Your task to perform on an android device: Open Chrome and go to settings Image 0: 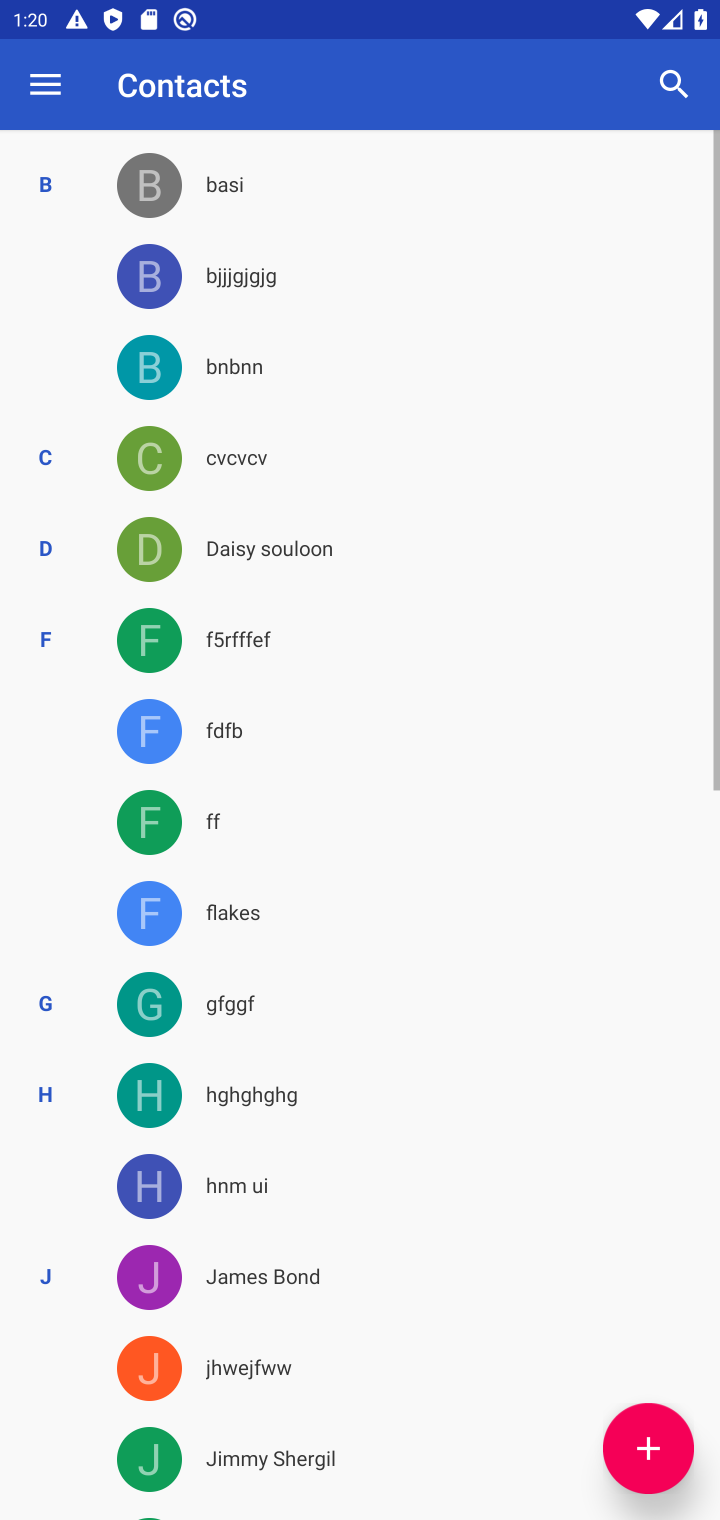
Step 0: press home button
Your task to perform on an android device: Open Chrome and go to settings Image 1: 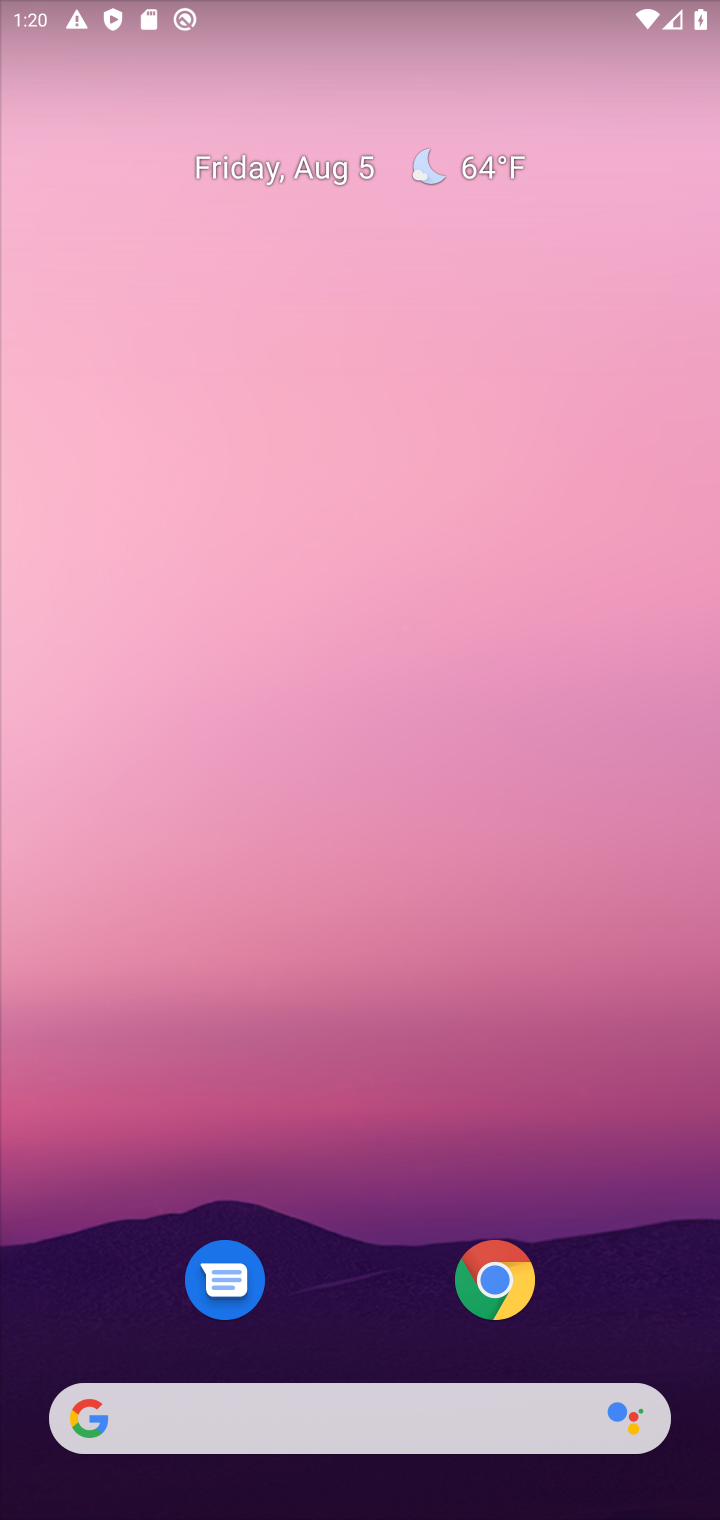
Step 1: click (502, 1265)
Your task to perform on an android device: Open Chrome and go to settings Image 2: 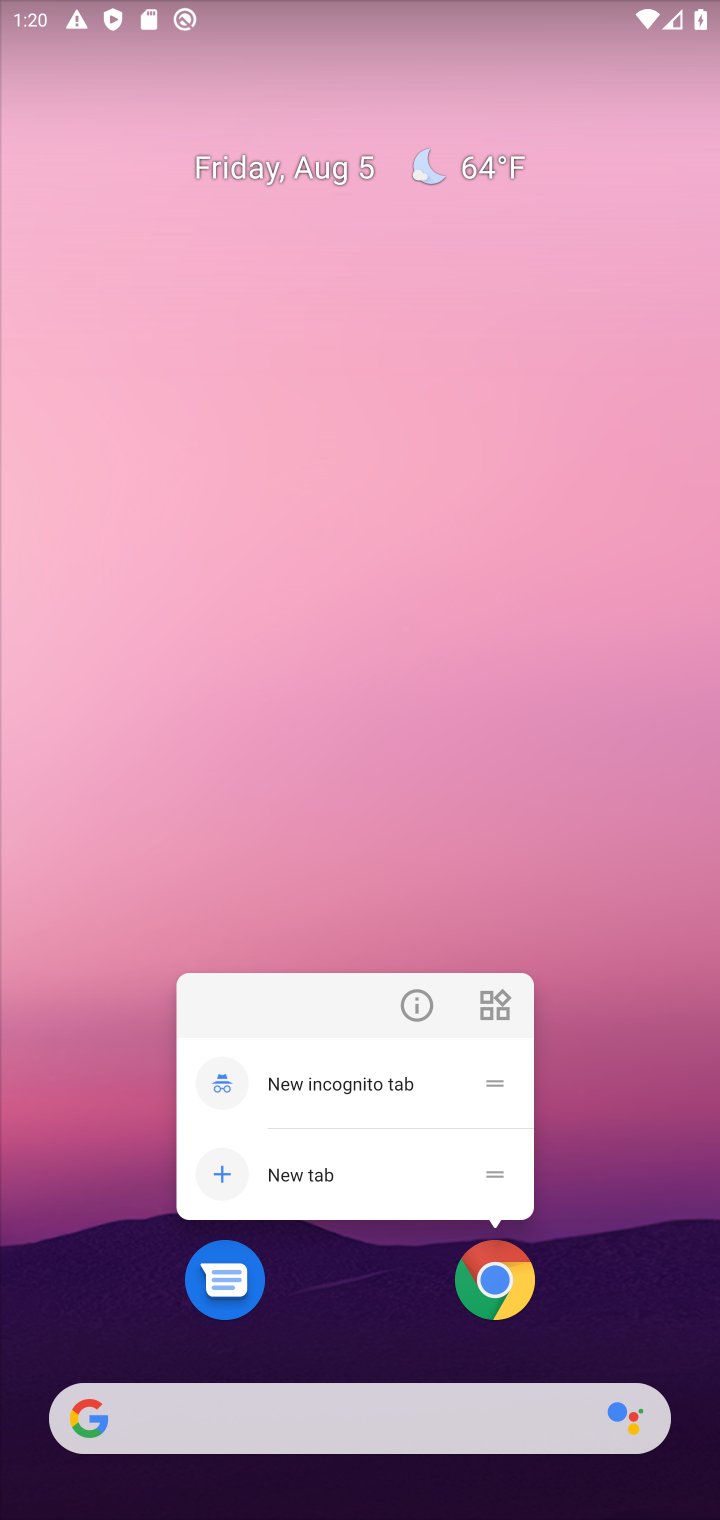
Step 2: click (491, 1280)
Your task to perform on an android device: Open Chrome and go to settings Image 3: 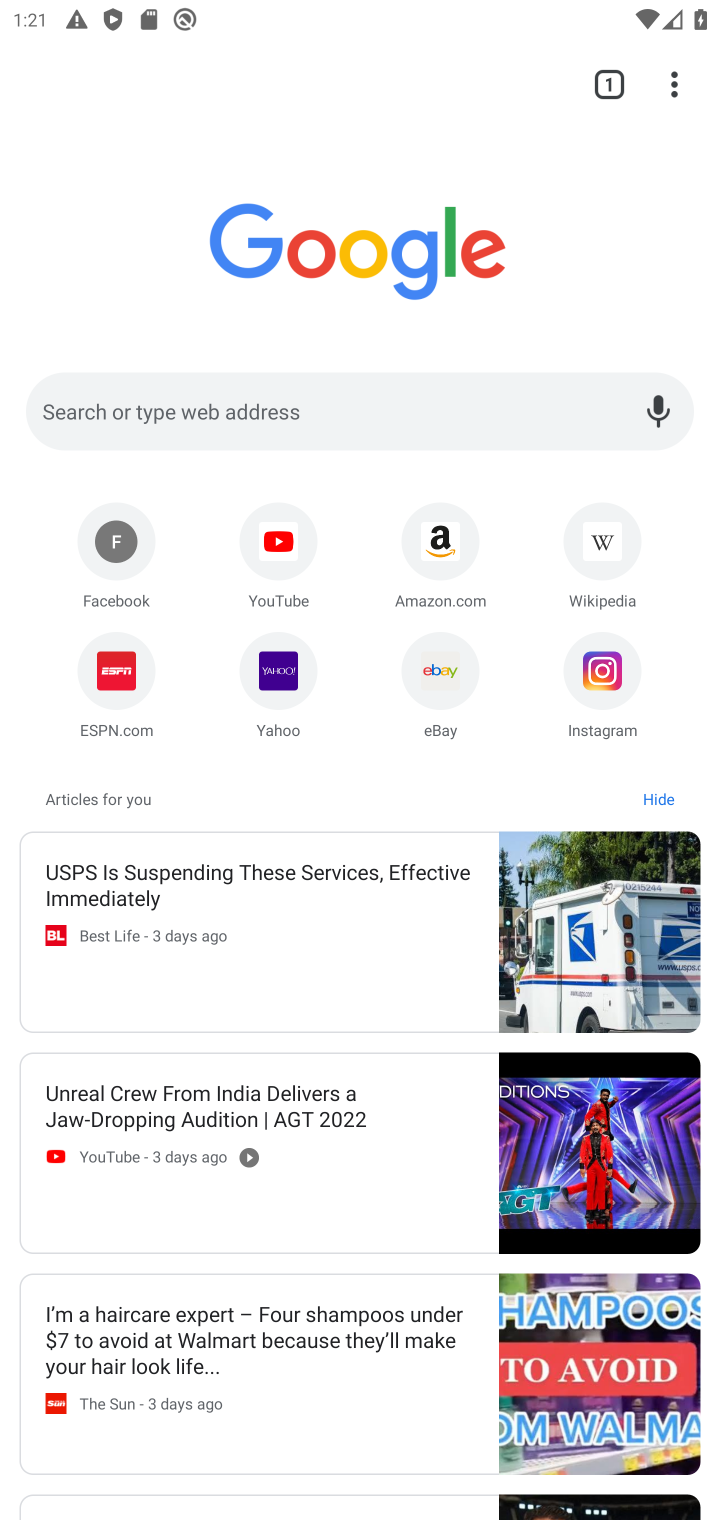
Step 3: click (668, 86)
Your task to perform on an android device: Open Chrome and go to settings Image 4: 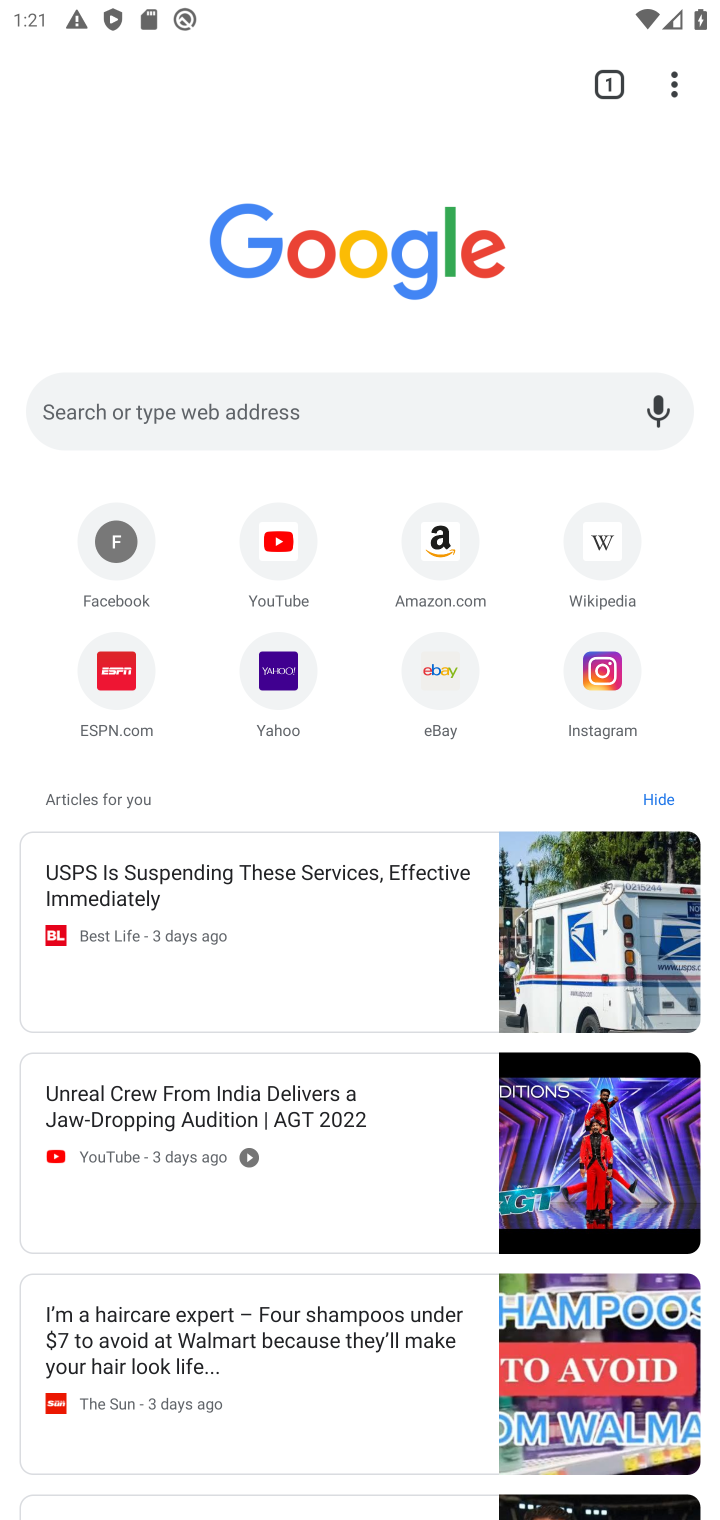
Step 4: click (668, 86)
Your task to perform on an android device: Open Chrome and go to settings Image 5: 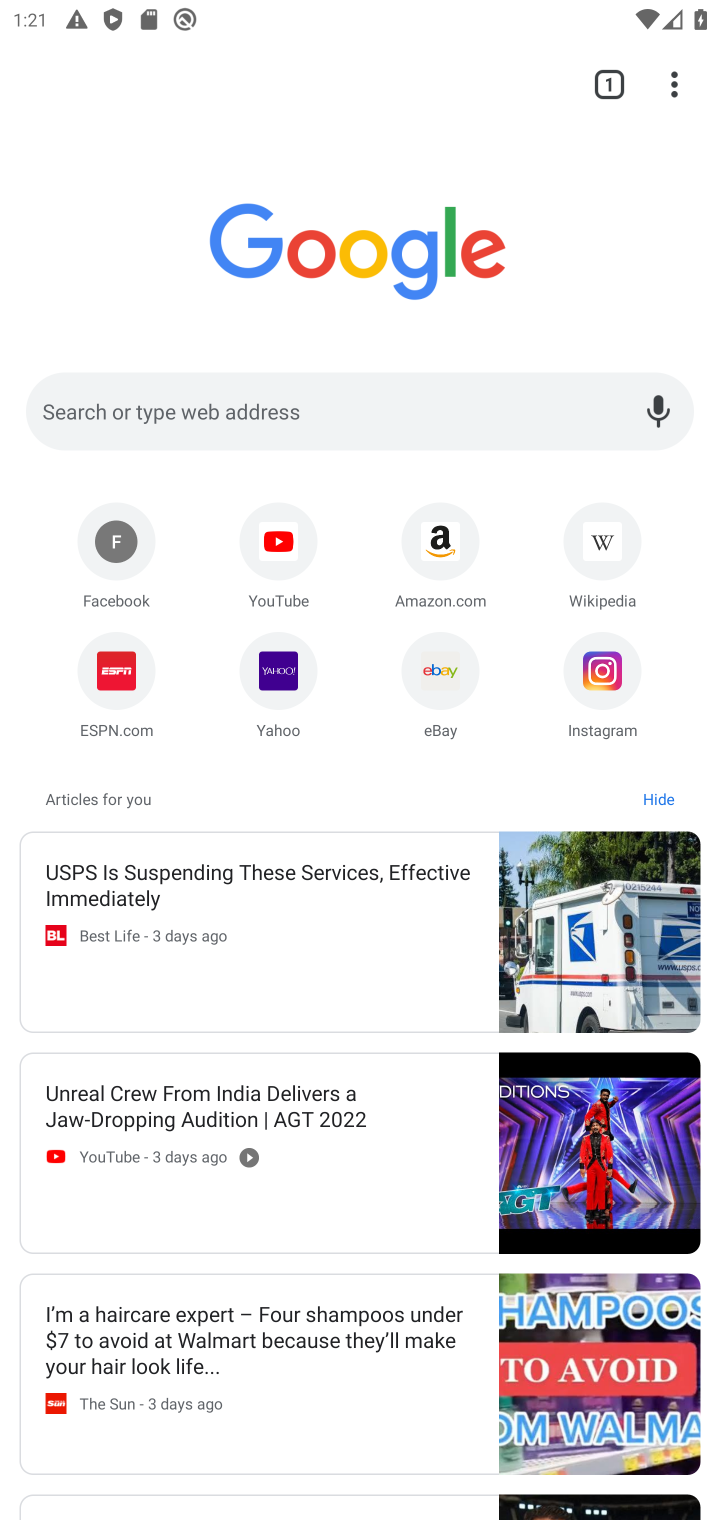
Step 5: click (697, 113)
Your task to perform on an android device: Open Chrome and go to settings Image 6: 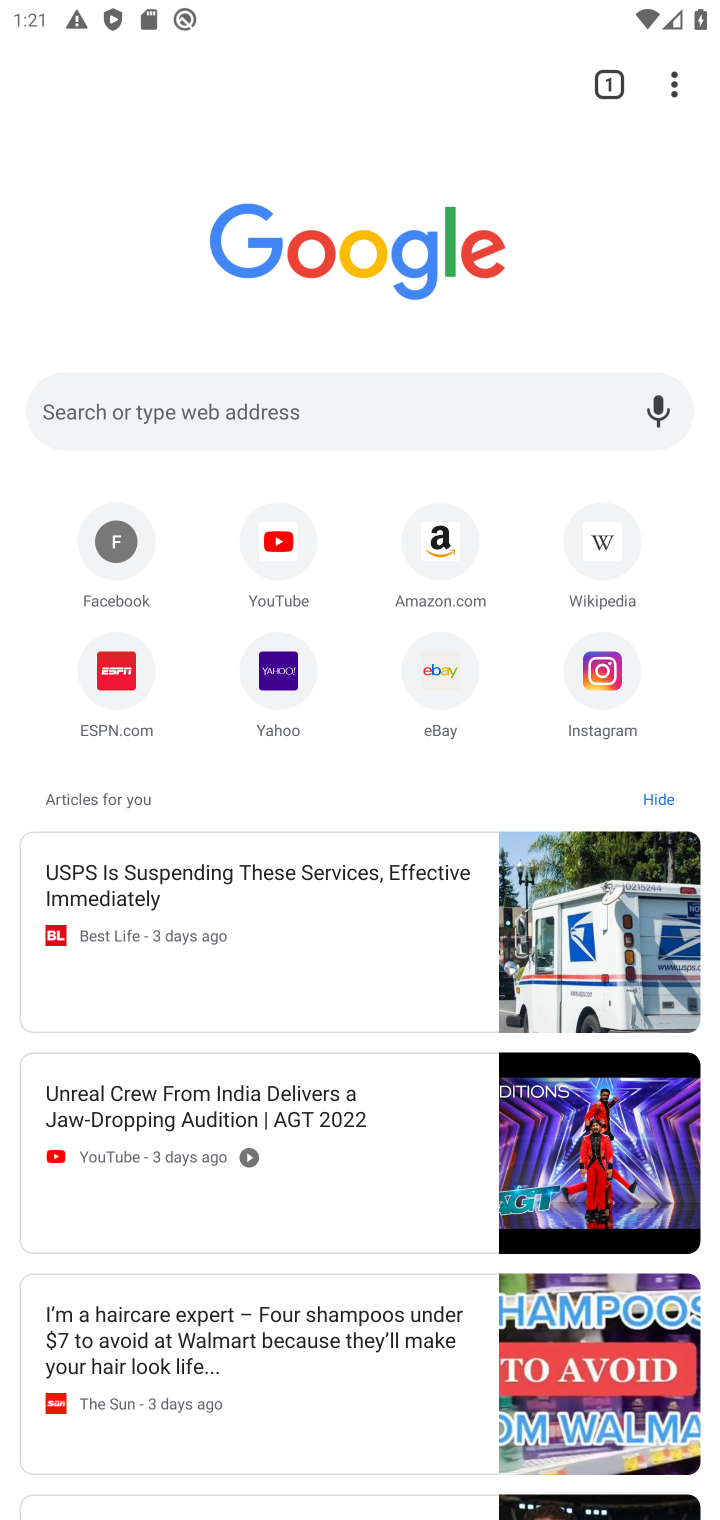
Step 6: click (703, 88)
Your task to perform on an android device: Open Chrome and go to settings Image 7: 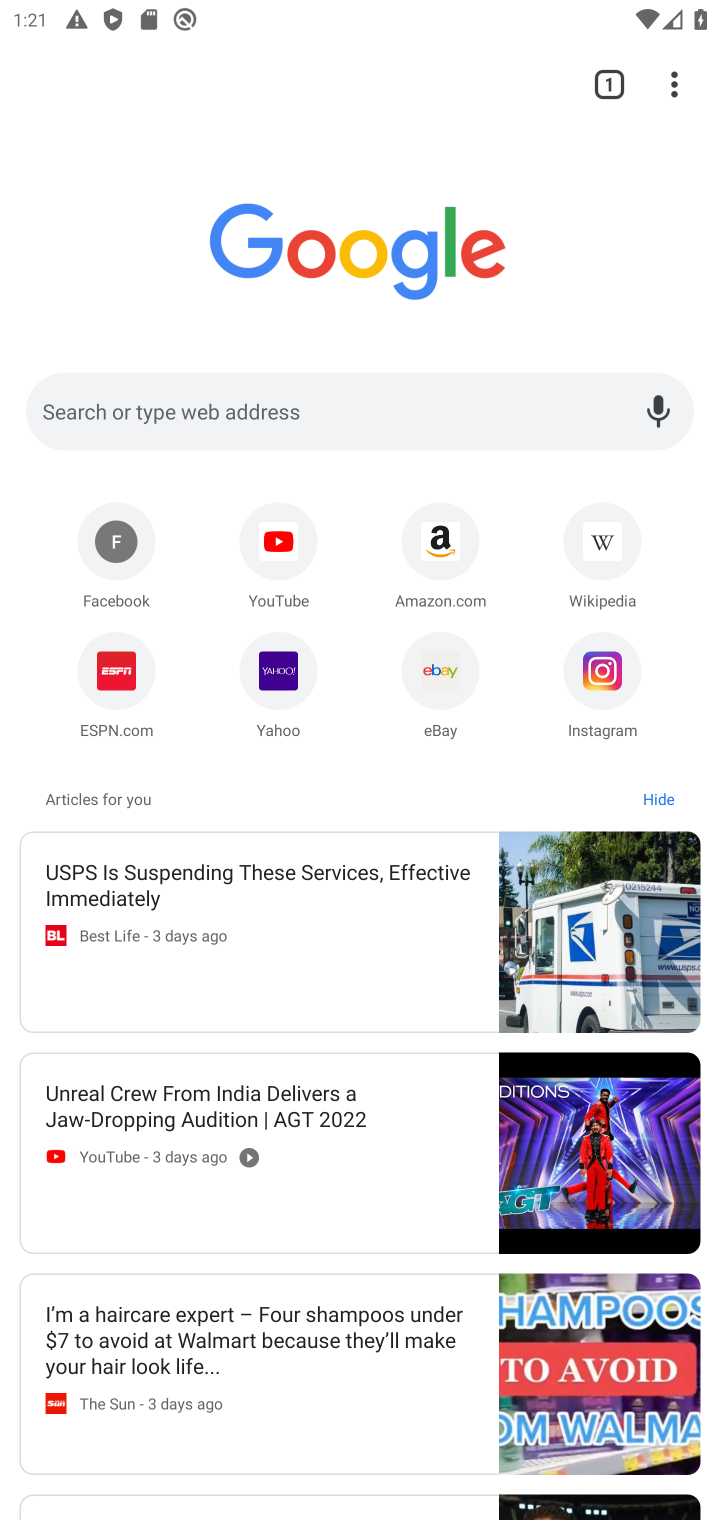
Step 7: click (703, 88)
Your task to perform on an android device: Open Chrome and go to settings Image 8: 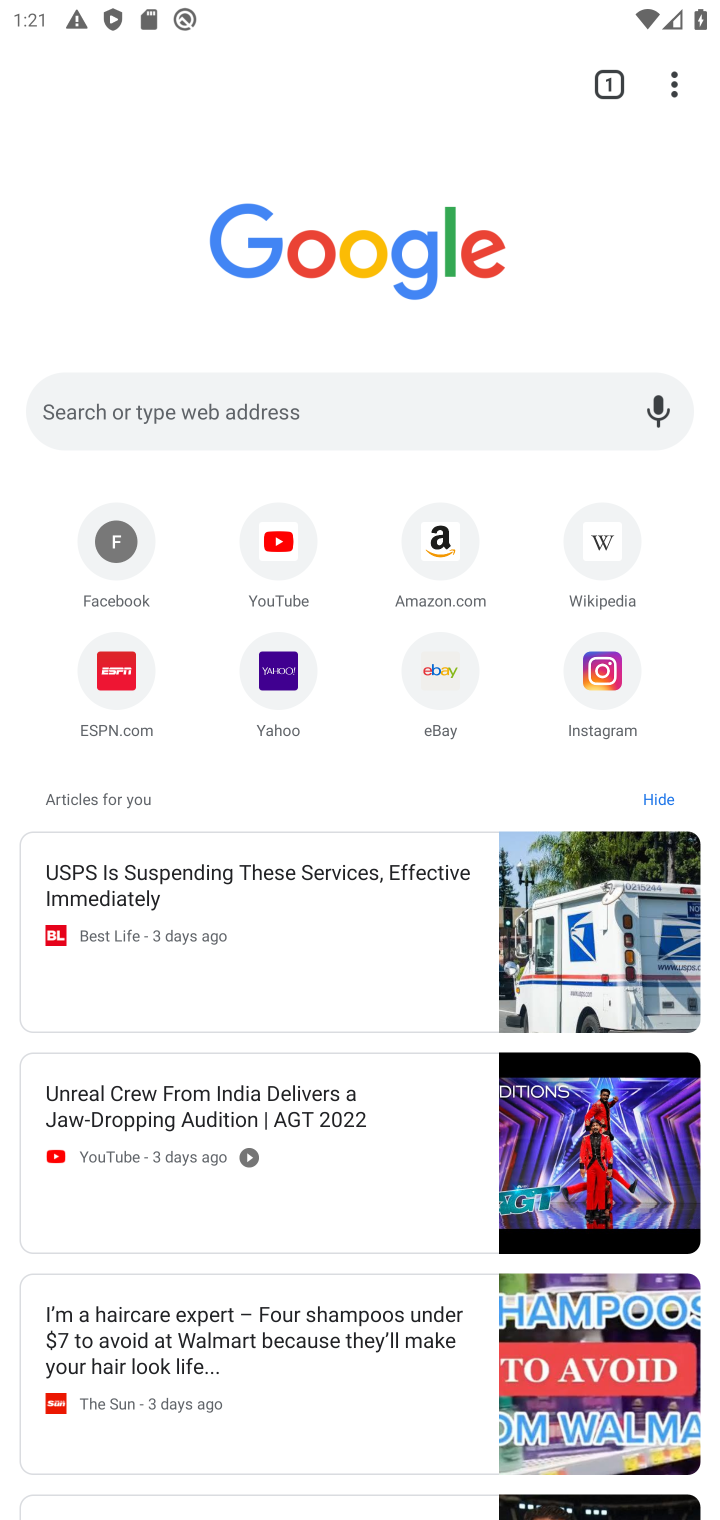
Step 8: click (701, 33)
Your task to perform on an android device: Open Chrome and go to settings Image 9: 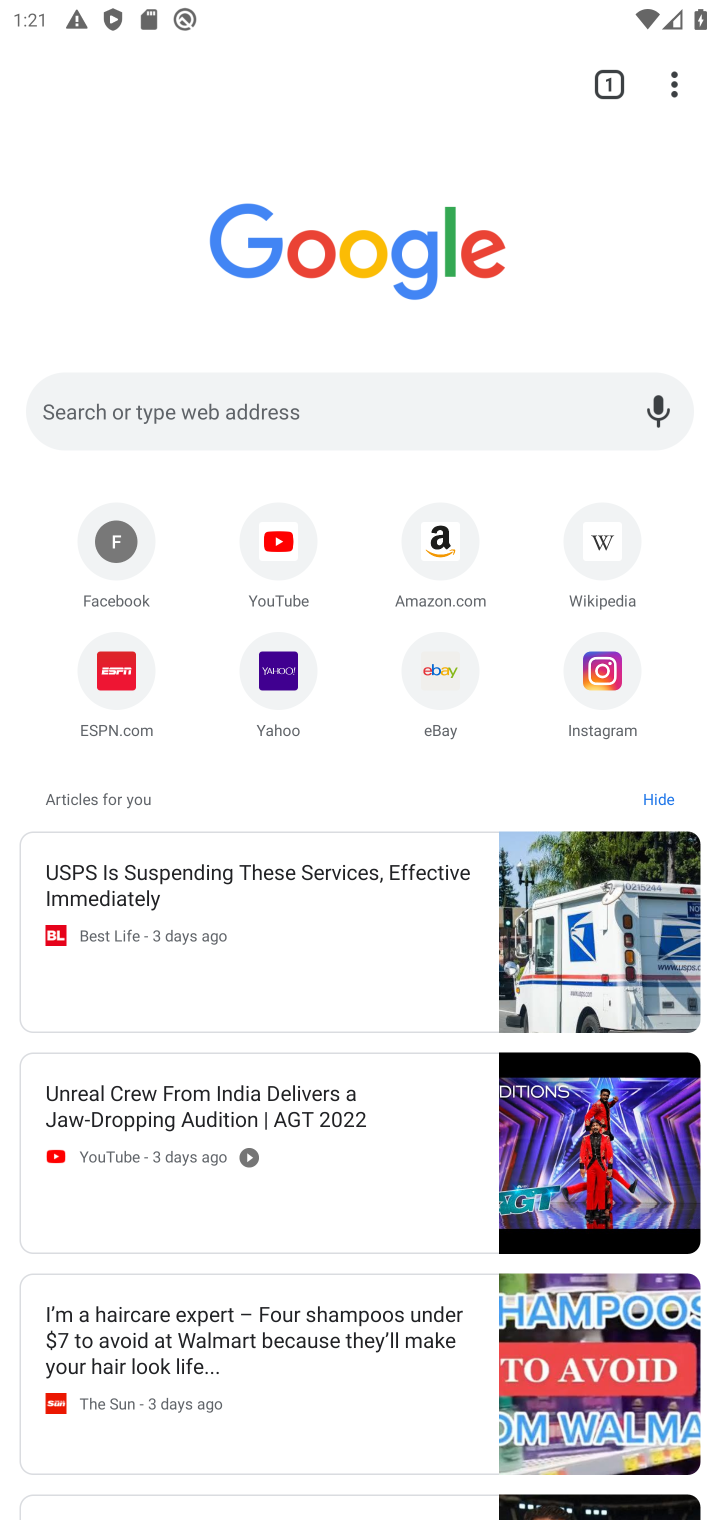
Step 9: click (701, 74)
Your task to perform on an android device: Open Chrome and go to settings Image 10: 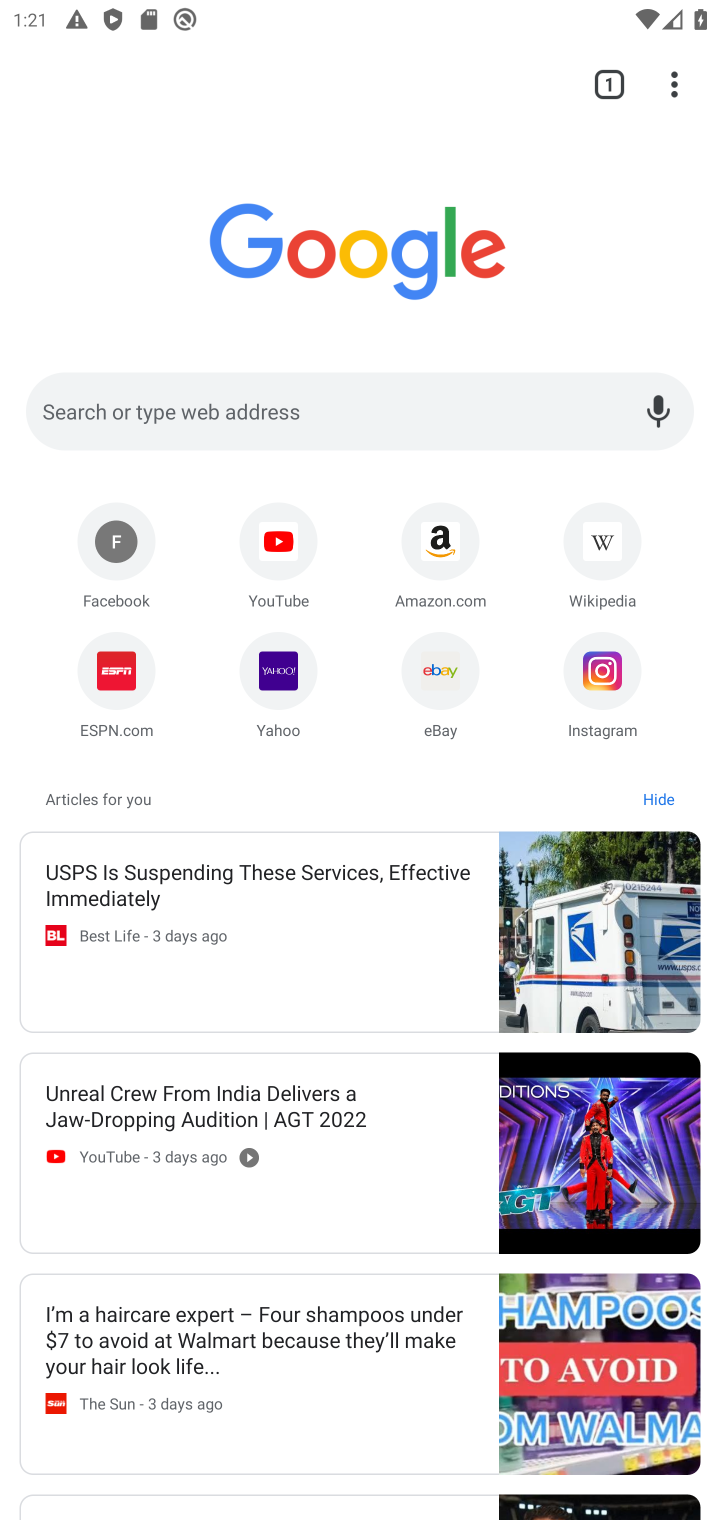
Step 10: click (685, 74)
Your task to perform on an android device: Open Chrome and go to settings Image 11: 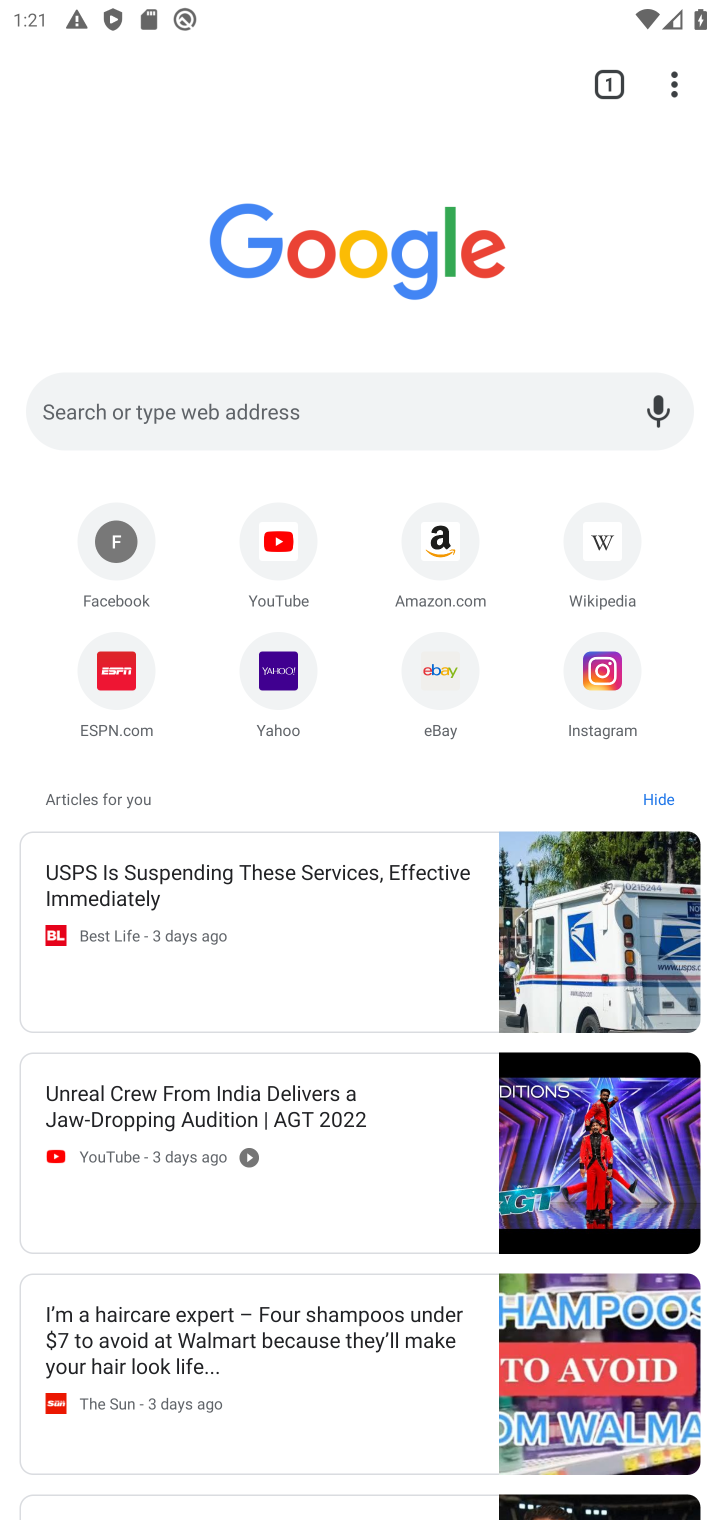
Step 11: click (680, 93)
Your task to perform on an android device: Open Chrome and go to settings Image 12: 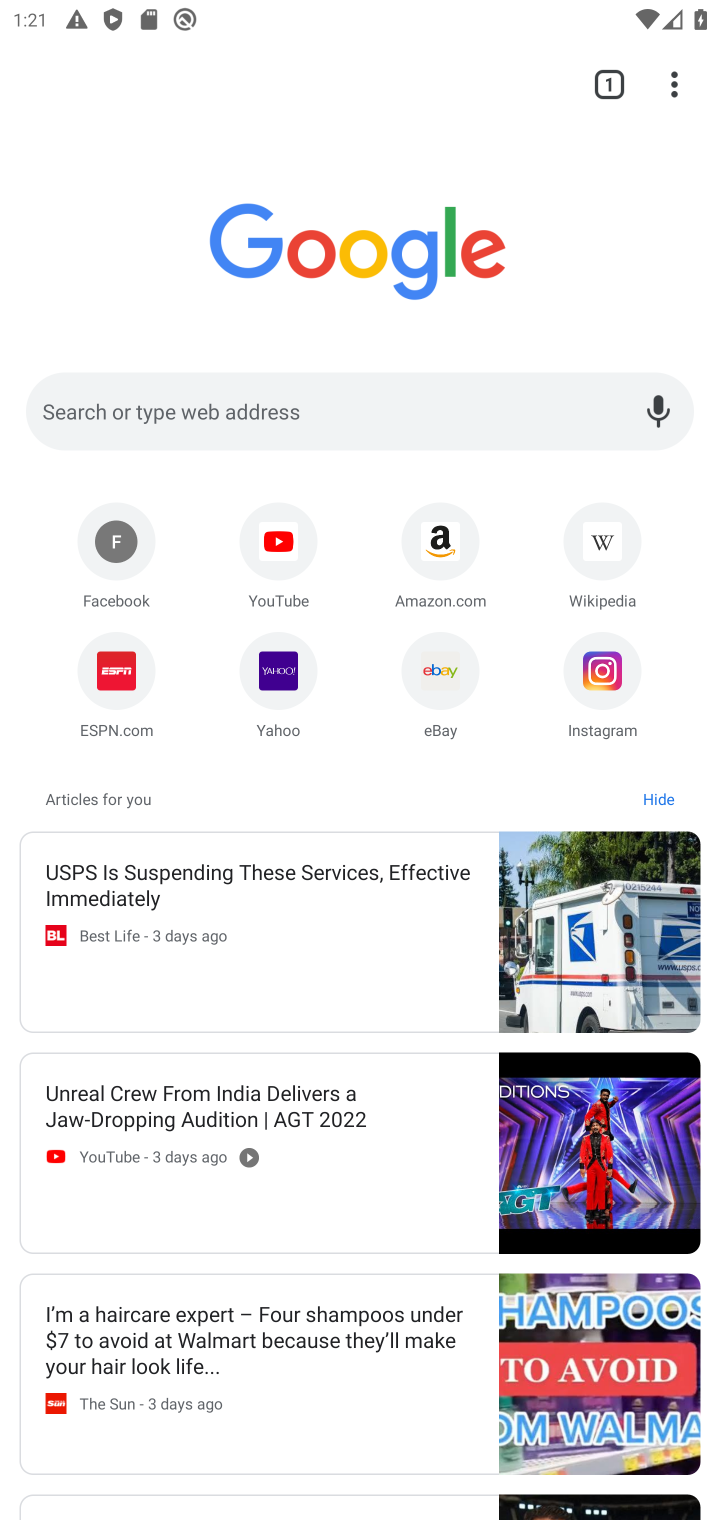
Step 12: click (712, 93)
Your task to perform on an android device: Open Chrome and go to settings Image 13: 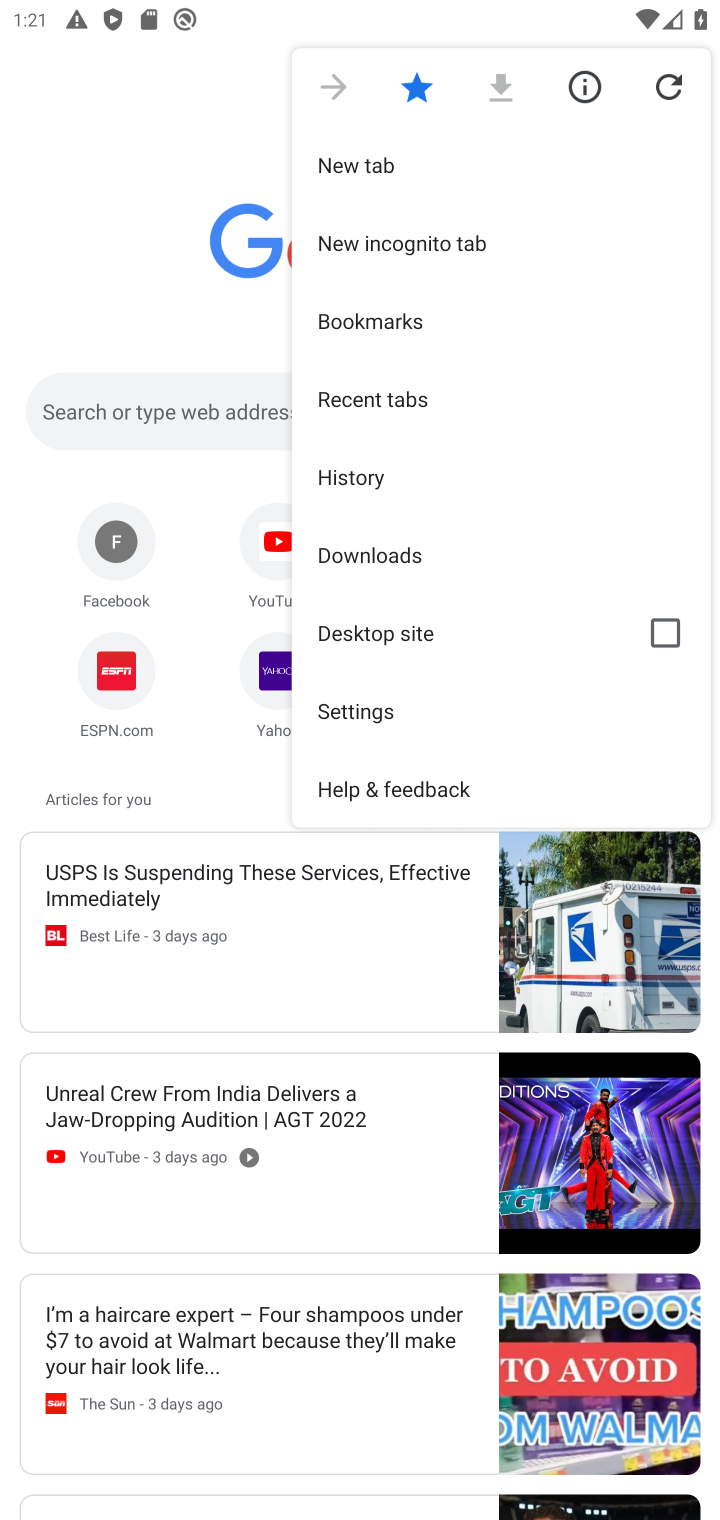
Step 13: click (402, 726)
Your task to perform on an android device: Open Chrome and go to settings Image 14: 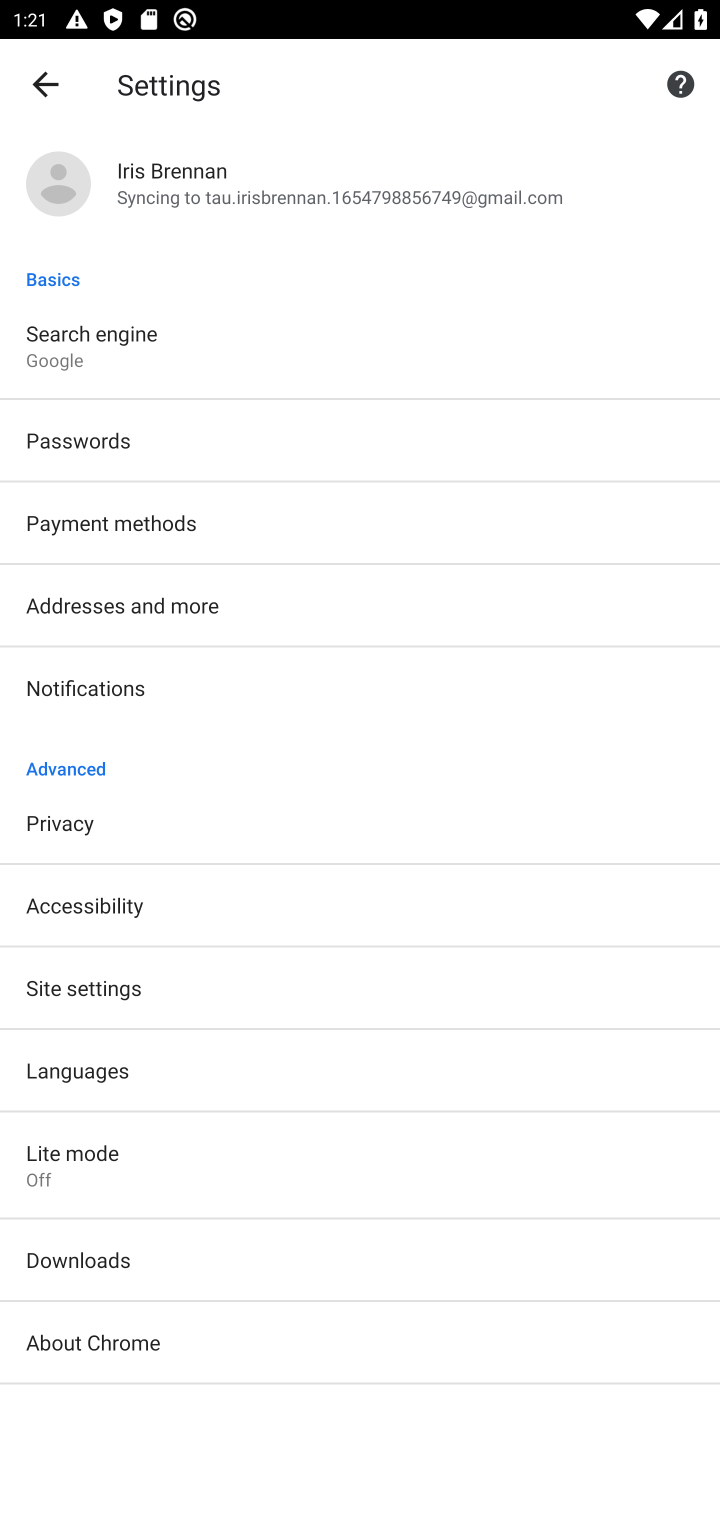
Step 14: task complete